Your task to perform on an android device: snooze an email in the gmail app Image 0: 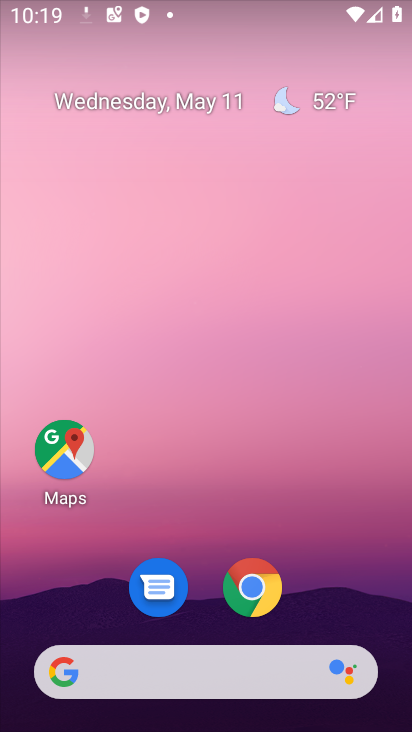
Step 0: drag from (272, 711) to (191, 264)
Your task to perform on an android device: snooze an email in the gmail app Image 1: 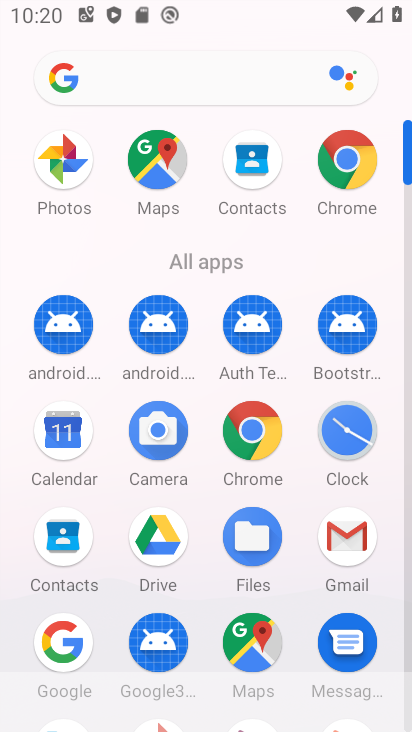
Step 1: click (358, 538)
Your task to perform on an android device: snooze an email in the gmail app Image 2: 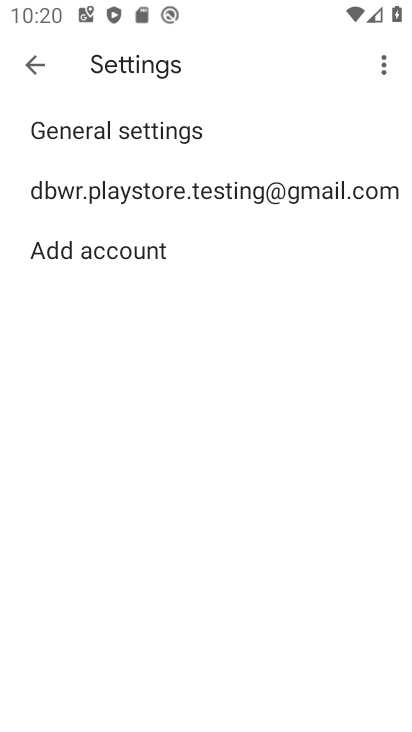
Step 2: click (33, 77)
Your task to perform on an android device: snooze an email in the gmail app Image 3: 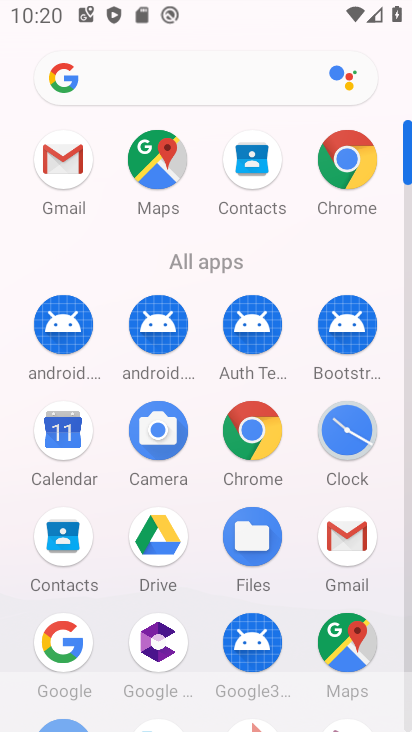
Step 3: click (67, 140)
Your task to perform on an android device: snooze an email in the gmail app Image 4: 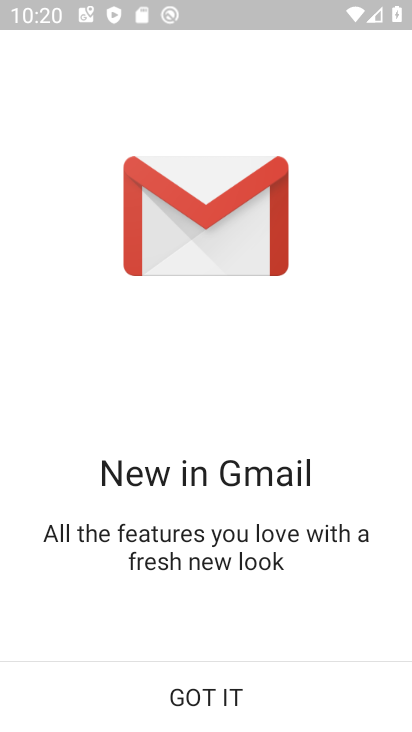
Step 4: click (193, 693)
Your task to perform on an android device: snooze an email in the gmail app Image 5: 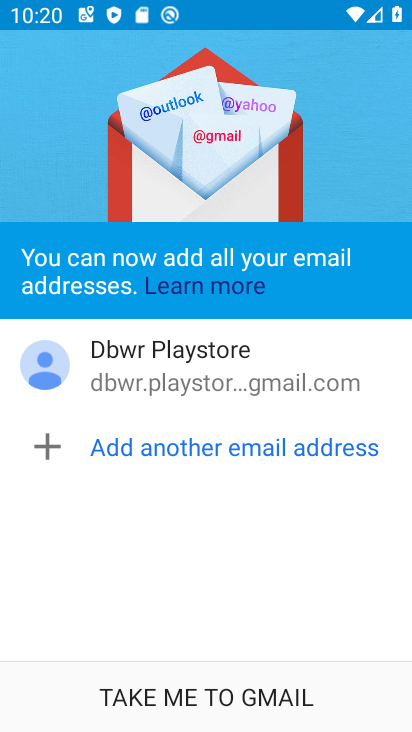
Step 5: click (187, 688)
Your task to perform on an android device: snooze an email in the gmail app Image 6: 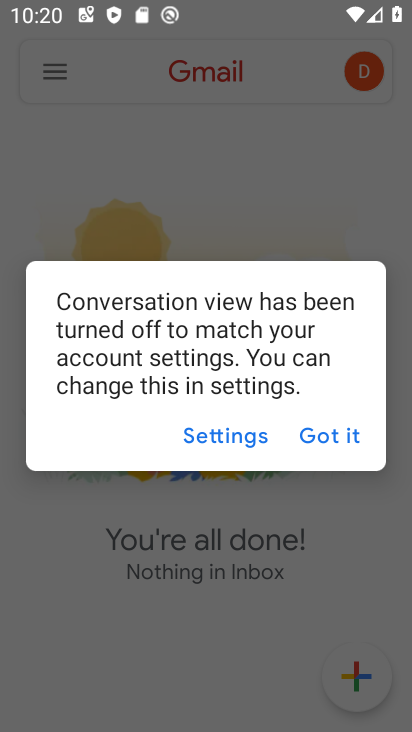
Step 6: click (311, 454)
Your task to perform on an android device: snooze an email in the gmail app Image 7: 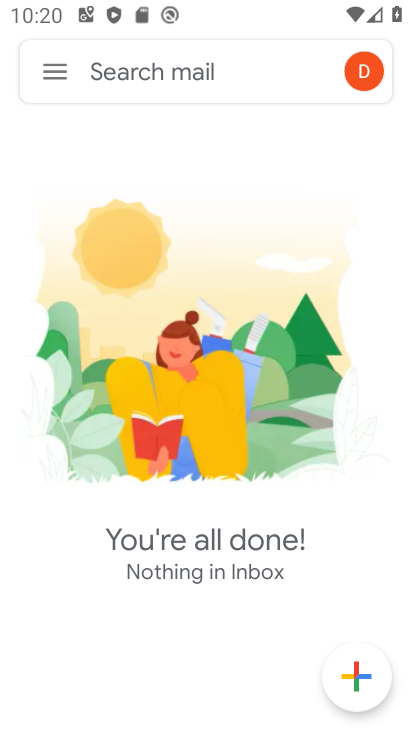
Step 7: click (44, 79)
Your task to perform on an android device: snooze an email in the gmail app Image 8: 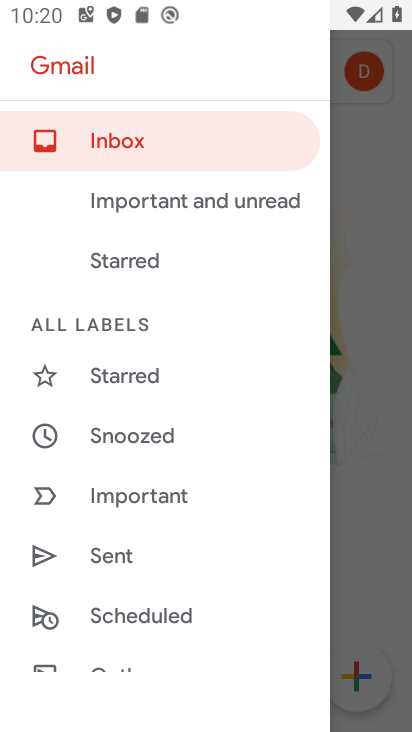
Step 8: click (131, 440)
Your task to perform on an android device: snooze an email in the gmail app Image 9: 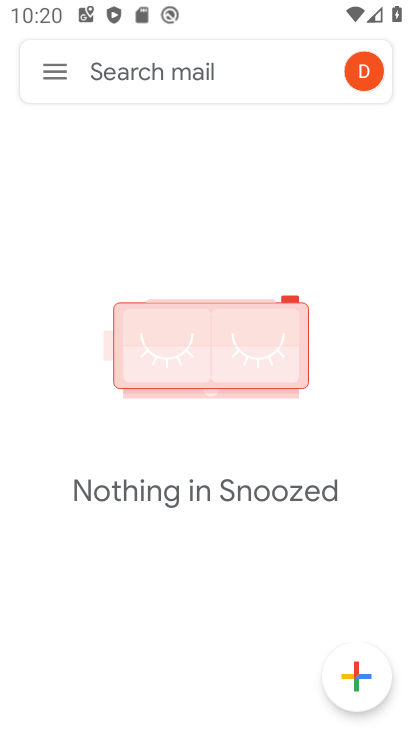
Step 9: task complete